Your task to perform on an android device: Open calendar and show me the second week of next month Image 0: 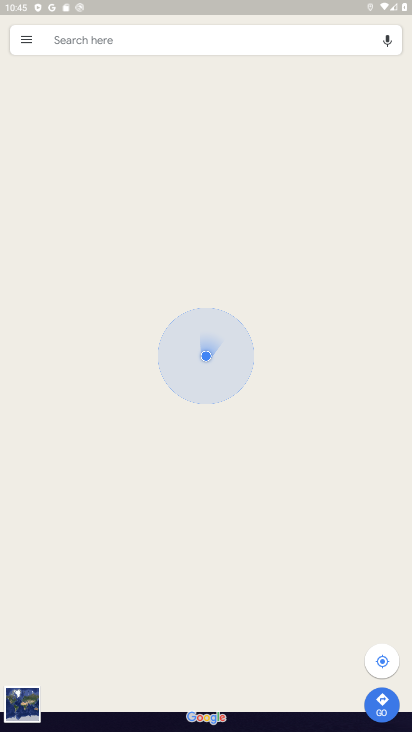
Step 0: press home button
Your task to perform on an android device: Open calendar and show me the second week of next month Image 1: 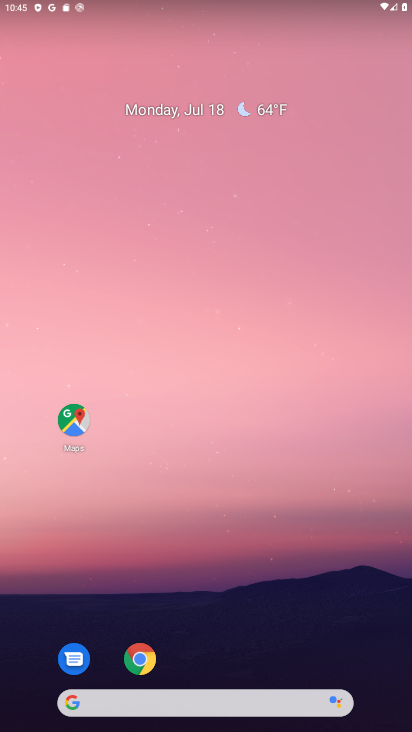
Step 1: drag from (245, 668) to (242, 76)
Your task to perform on an android device: Open calendar and show me the second week of next month Image 2: 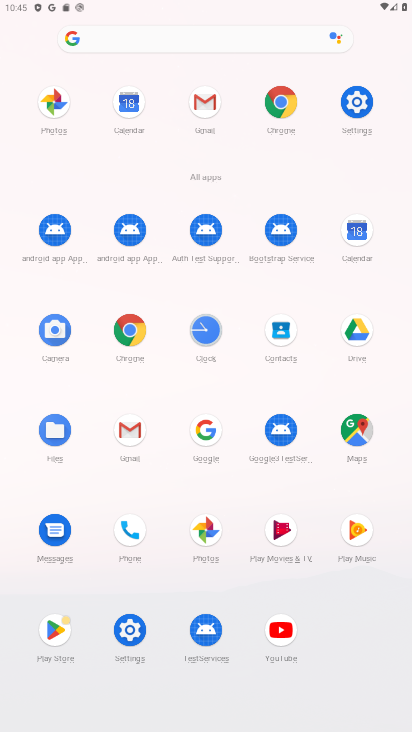
Step 2: click (353, 240)
Your task to perform on an android device: Open calendar and show me the second week of next month Image 3: 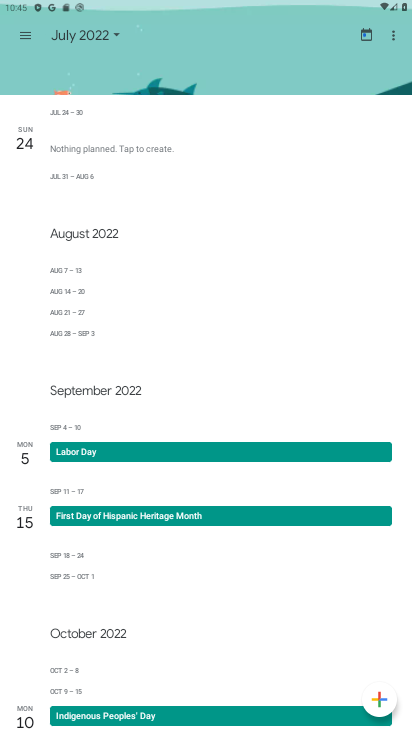
Step 3: click (109, 37)
Your task to perform on an android device: Open calendar and show me the second week of next month Image 4: 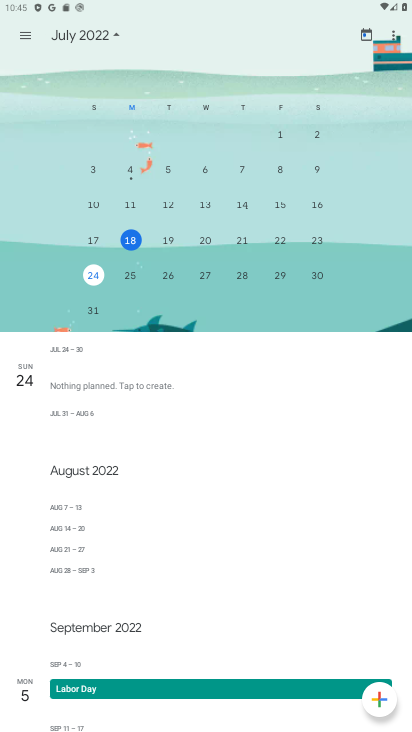
Step 4: drag from (377, 122) to (40, 164)
Your task to perform on an android device: Open calendar and show me the second week of next month Image 5: 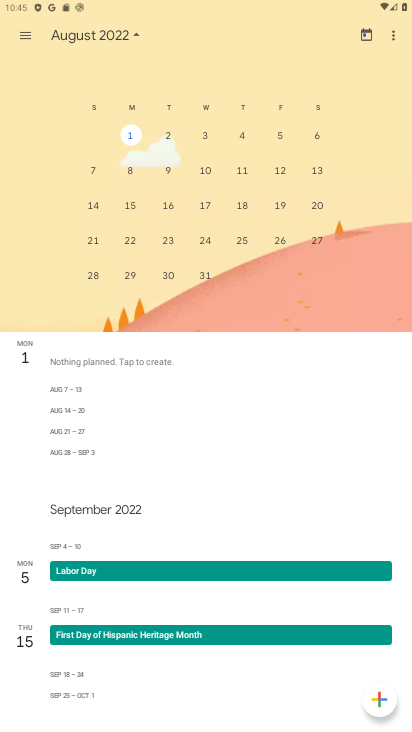
Step 5: click (132, 164)
Your task to perform on an android device: Open calendar and show me the second week of next month Image 6: 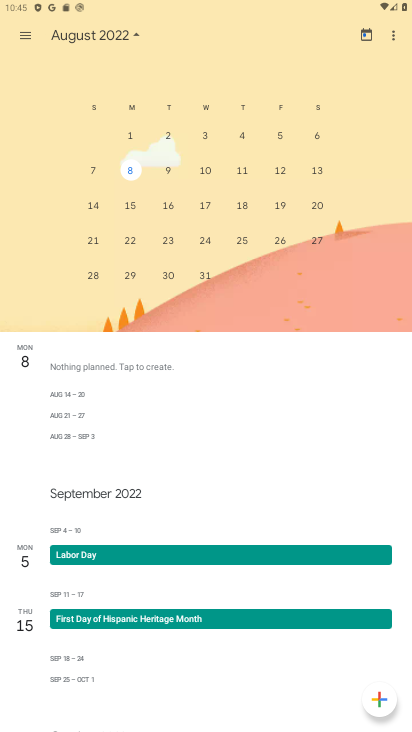
Step 6: task complete